Your task to perform on an android device: Open calendar and show me the third week of next month Image 0: 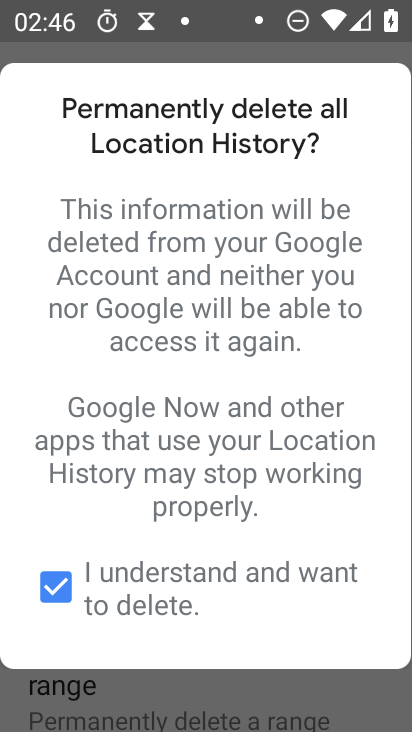
Step 0: press home button
Your task to perform on an android device: Open calendar and show me the third week of next month Image 1: 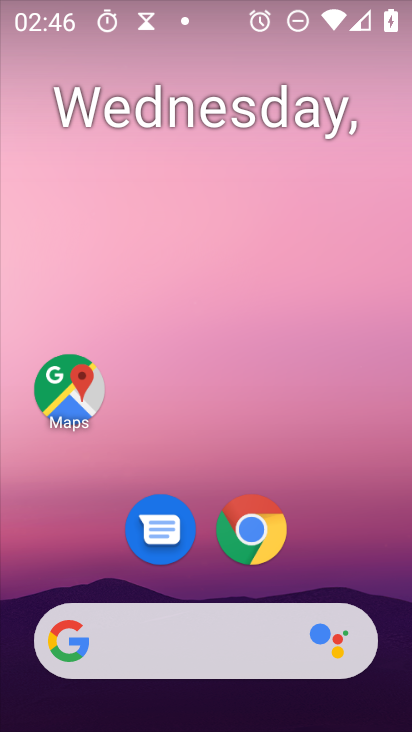
Step 1: drag from (164, 681) to (355, 171)
Your task to perform on an android device: Open calendar and show me the third week of next month Image 2: 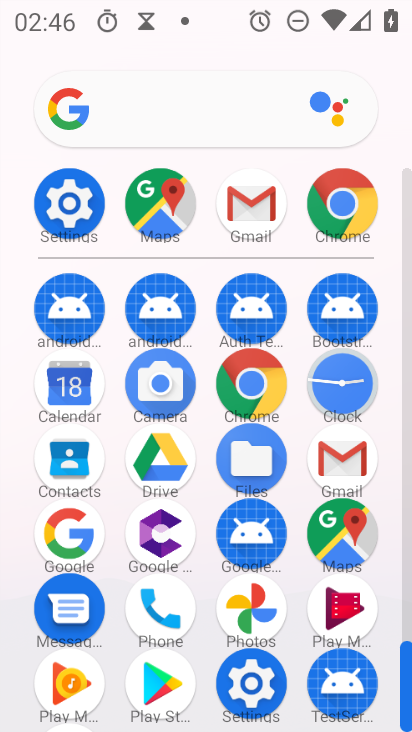
Step 2: click (70, 389)
Your task to perform on an android device: Open calendar and show me the third week of next month Image 3: 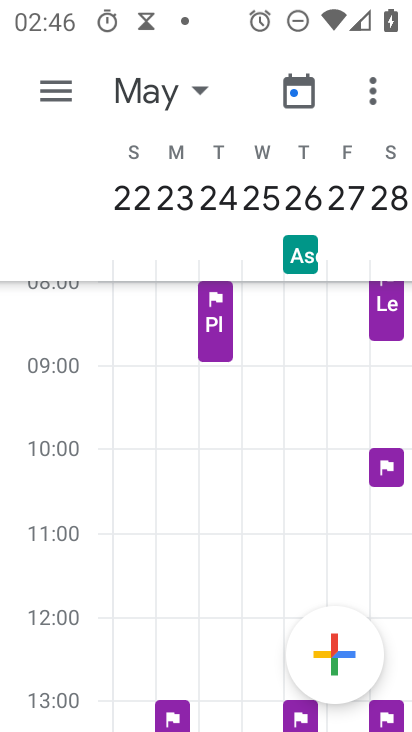
Step 3: click (202, 86)
Your task to perform on an android device: Open calendar and show me the third week of next month Image 4: 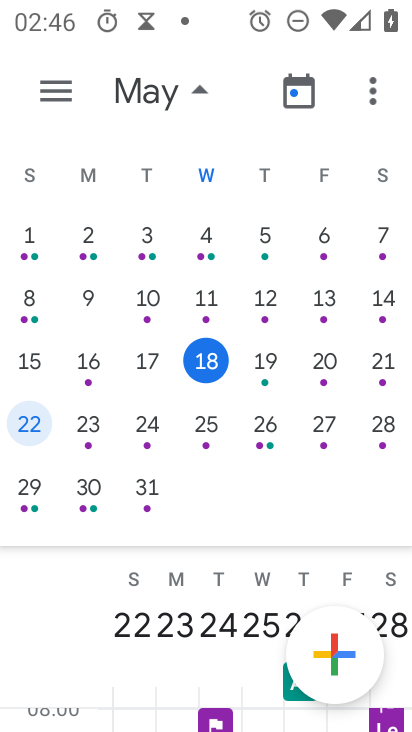
Step 4: drag from (349, 351) to (5, 510)
Your task to perform on an android device: Open calendar and show me the third week of next month Image 5: 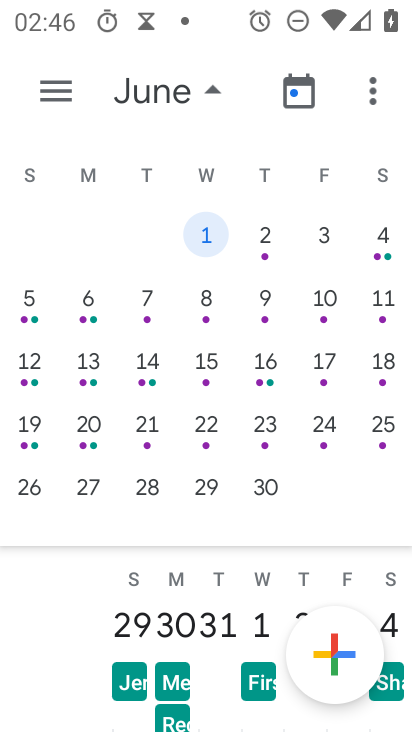
Step 5: click (198, 370)
Your task to perform on an android device: Open calendar and show me the third week of next month Image 6: 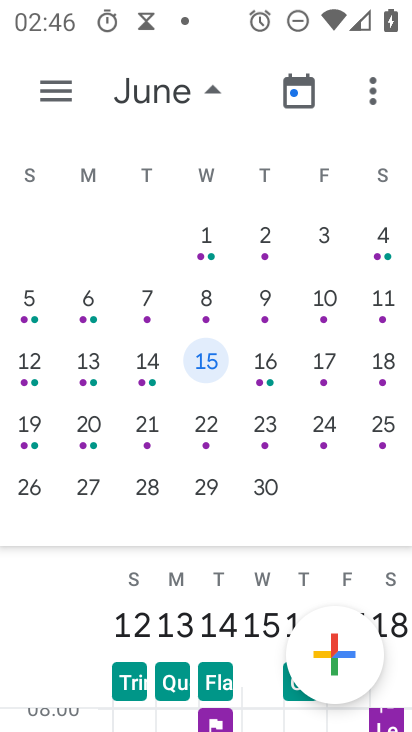
Step 6: task complete